Your task to perform on an android device: change notification settings in the gmail app Image 0: 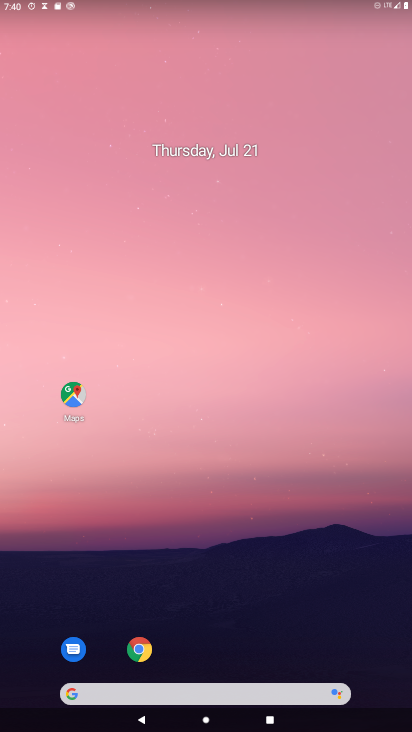
Step 0: drag from (302, 451) to (258, 10)
Your task to perform on an android device: change notification settings in the gmail app Image 1: 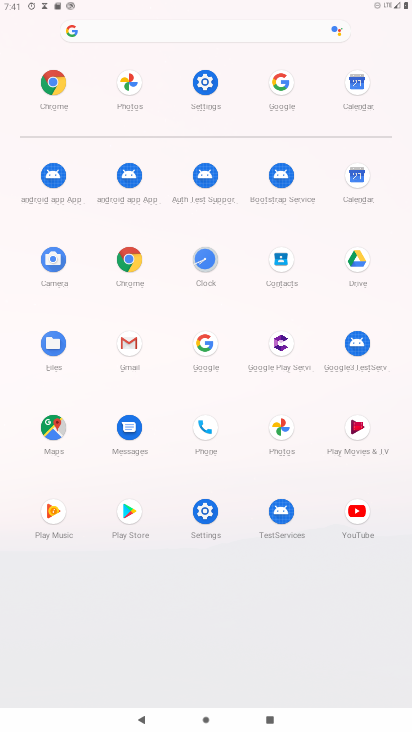
Step 1: click (127, 343)
Your task to perform on an android device: change notification settings in the gmail app Image 2: 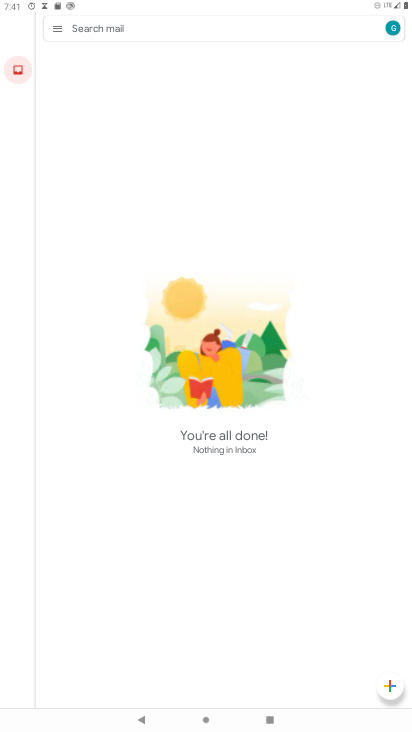
Step 2: click (57, 30)
Your task to perform on an android device: change notification settings in the gmail app Image 3: 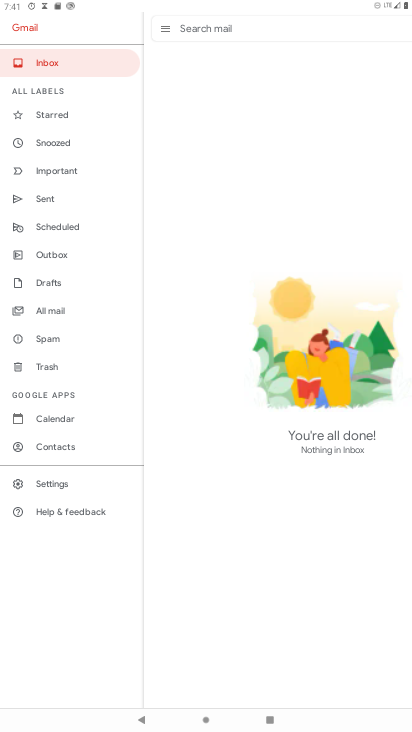
Step 3: click (35, 479)
Your task to perform on an android device: change notification settings in the gmail app Image 4: 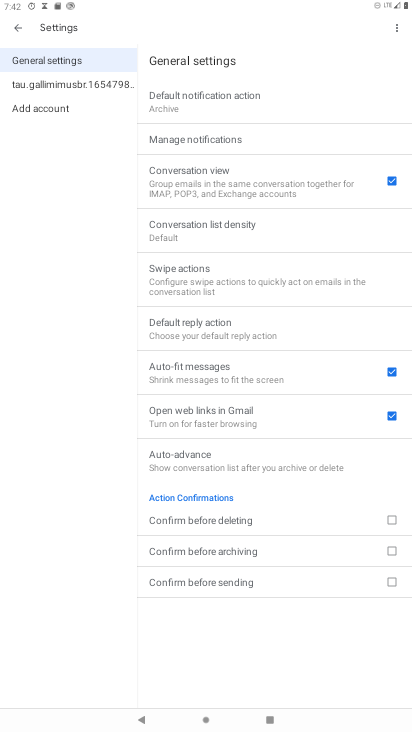
Step 4: click (65, 80)
Your task to perform on an android device: change notification settings in the gmail app Image 5: 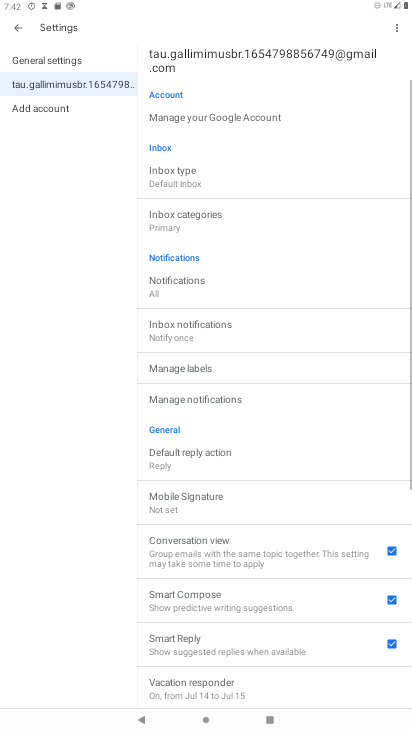
Step 5: click (203, 293)
Your task to perform on an android device: change notification settings in the gmail app Image 6: 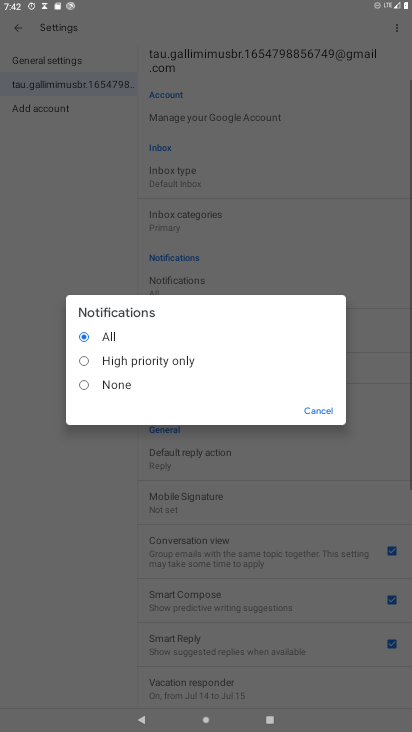
Step 6: click (102, 387)
Your task to perform on an android device: change notification settings in the gmail app Image 7: 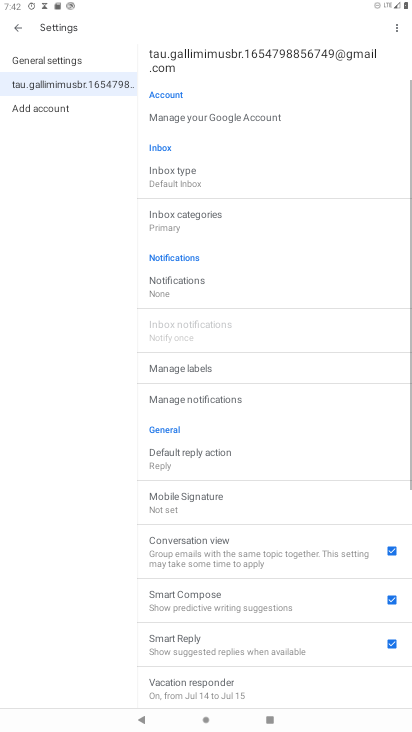
Step 7: task complete